Your task to perform on an android device: change text size in settings app Image 0: 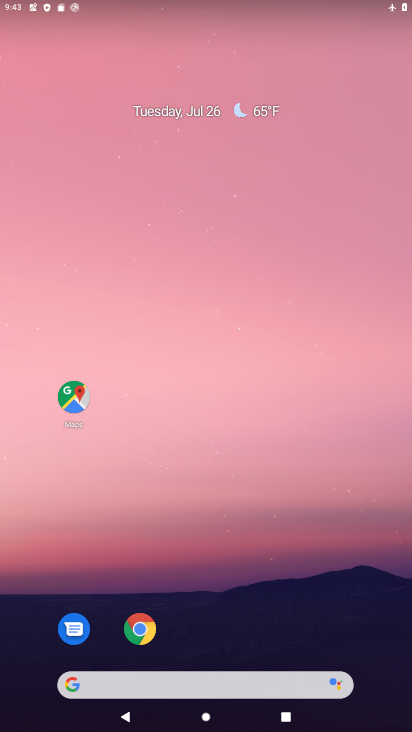
Step 0: drag from (258, 517) to (214, 28)
Your task to perform on an android device: change text size in settings app Image 1: 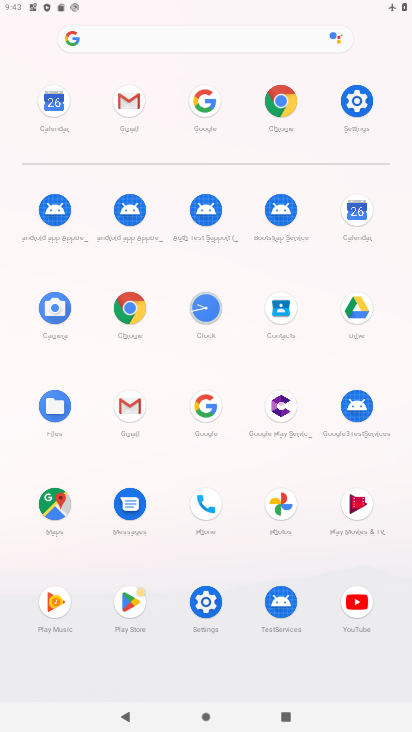
Step 1: click (349, 99)
Your task to perform on an android device: change text size in settings app Image 2: 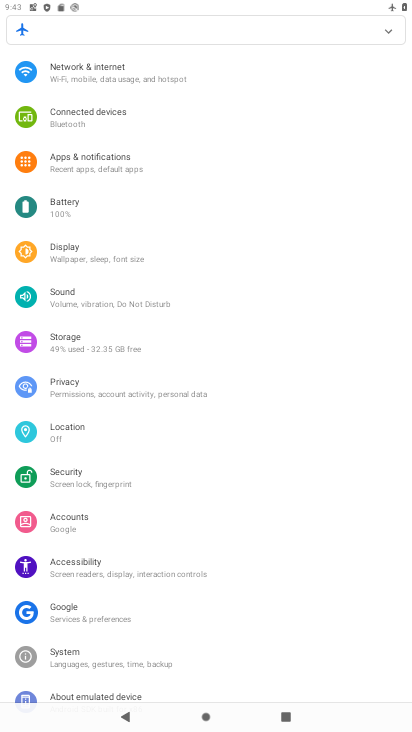
Step 2: click (107, 255)
Your task to perform on an android device: change text size in settings app Image 3: 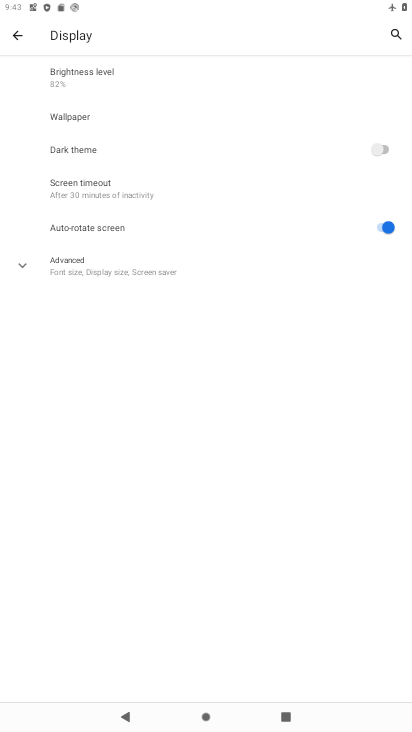
Step 3: click (92, 277)
Your task to perform on an android device: change text size in settings app Image 4: 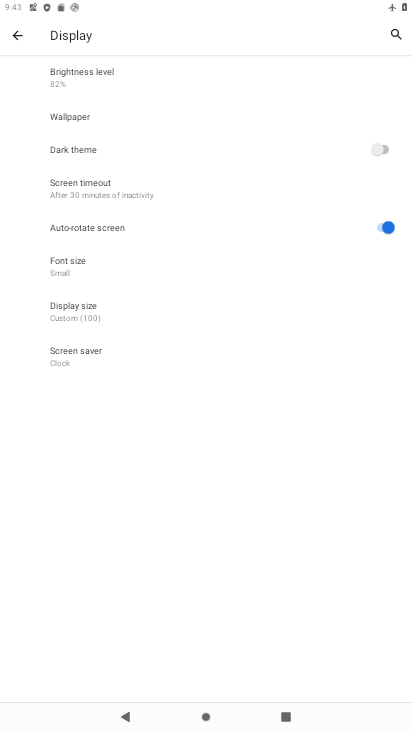
Step 4: click (88, 272)
Your task to perform on an android device: change text size in settings app Image 5: 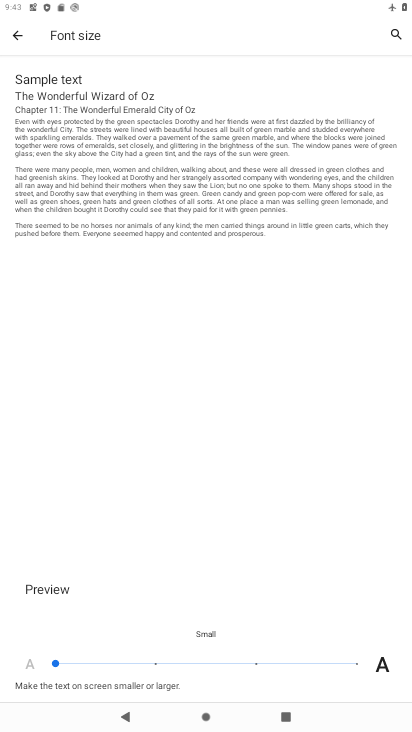
Step 5: click (119, 664)
Your task to perform on an android device: change text size in settings app Image 6: 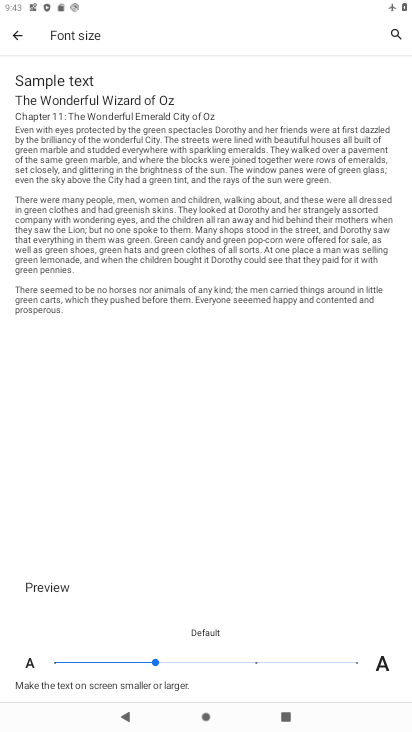
Step 6: task complete